Your task to perform on an android device: Open calendar and show me the second week of next month Image 0: 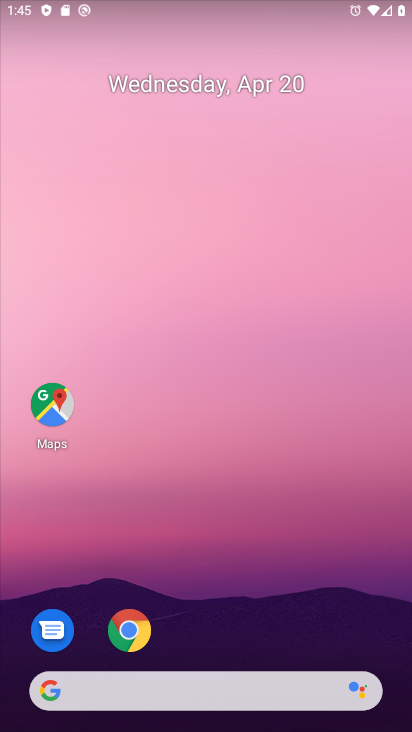
Step 0: press home button
Your task to perform on an android device: Open calendar and show me the second week of next month Image 1: 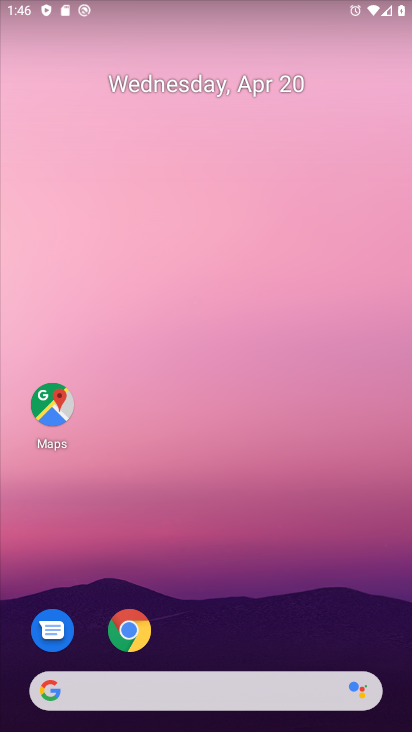
Step 1: drag from (168, 638) to (40, 99)
Your task to perform on an android device: Open calendar and show me the second week of next month Image 2: 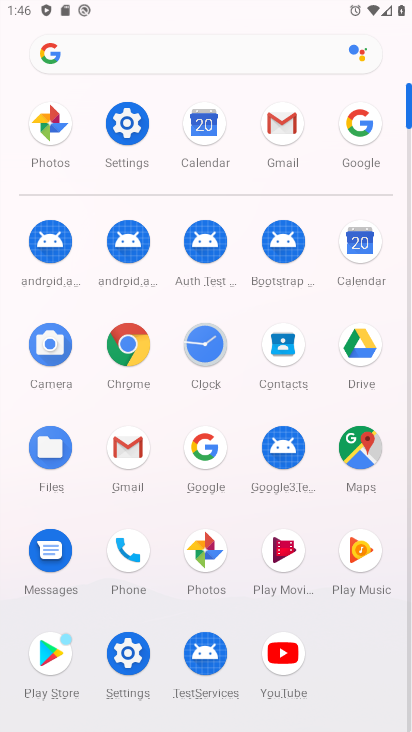
Step 2: click (366, 249)
Your task to perform on an android device: Open calendar and show me the second week of next month Image 3: 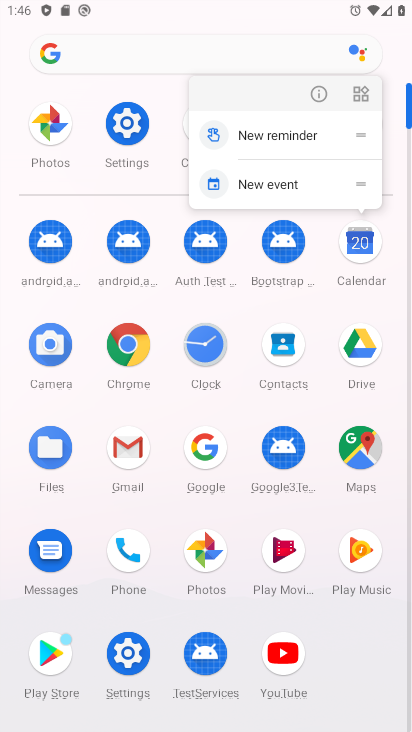
Step 3: click (357, 243)
Your task to perform on an android device: Open calendar and show me the second week of next month Image 4: 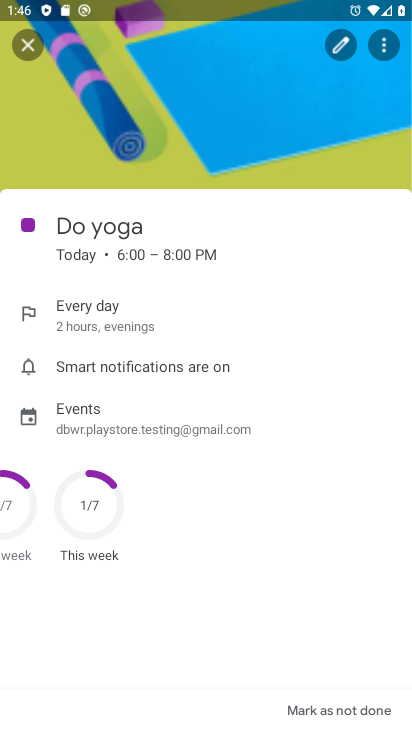
Step 4: click (24, 46)
Your task to perform on an android device: Open calendar and show me the second week of next month Image 5: 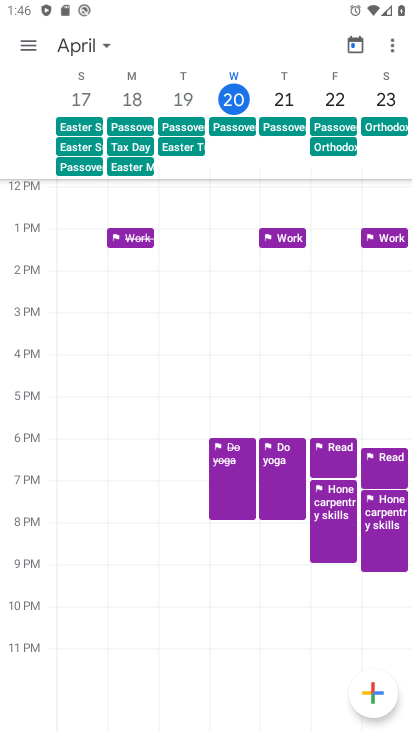
Step 5: drag from (303, 98) to (55, 102)
Your task to perform on an android device: Open calendar and show me the second week of next month Image 6: 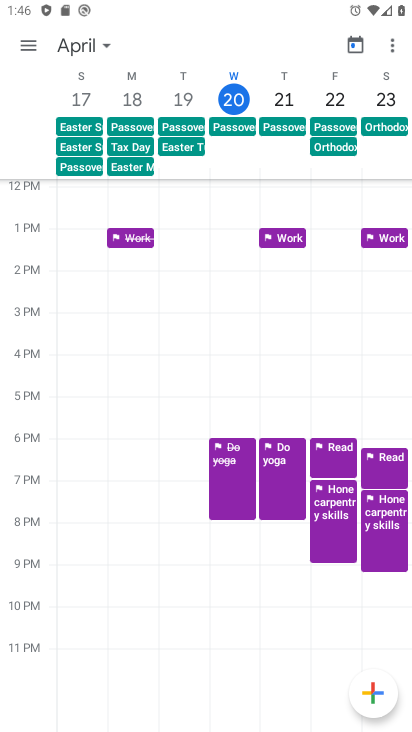
Step 6: click (100, 43)
Your task to perform on an android device: Open calendar and show me the second week of next month Image 7: 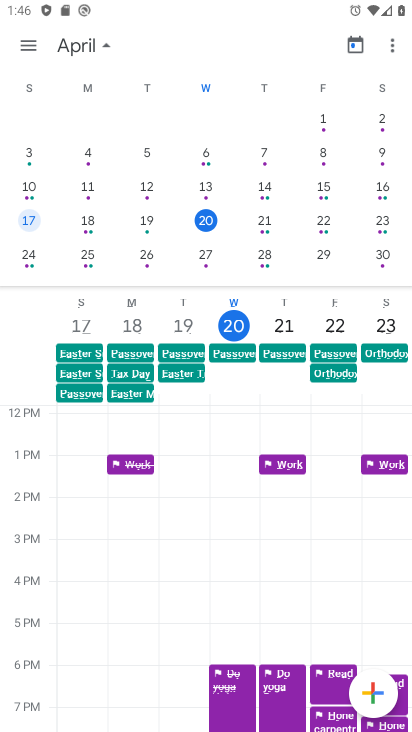
Step 7: drag from (368, 205) to (12, 186)
Your task to perform on an android device: Open calendar and show me the second week of next month Image 8: 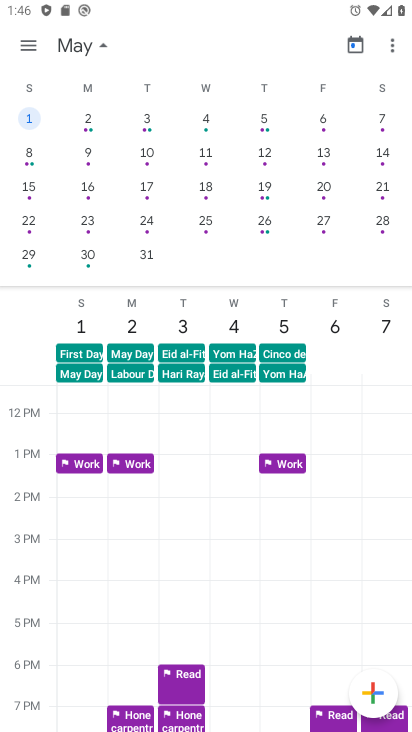
Step 8: click (29, 148)
Your task to perform on an android device: Open calendar and show me the second week of next month Image 9: 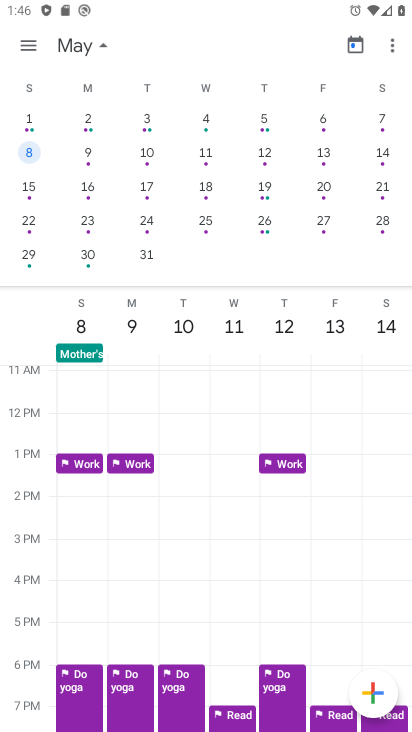
Step 9: task complete